Your task to perform on an android device: open app "TextNow: Call + Text Unlimited" (install if not already installed) Image 0: 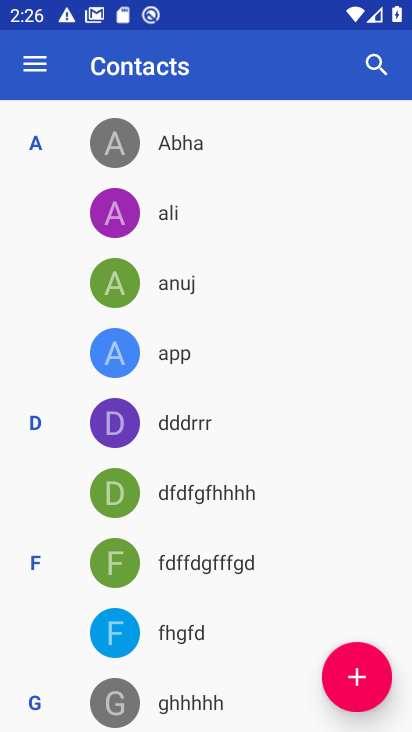
Step 0: press home button
Your task to perform on an android device: open app "TextNow: Call + Text Unlimited" (install if not already installed) Image 1: 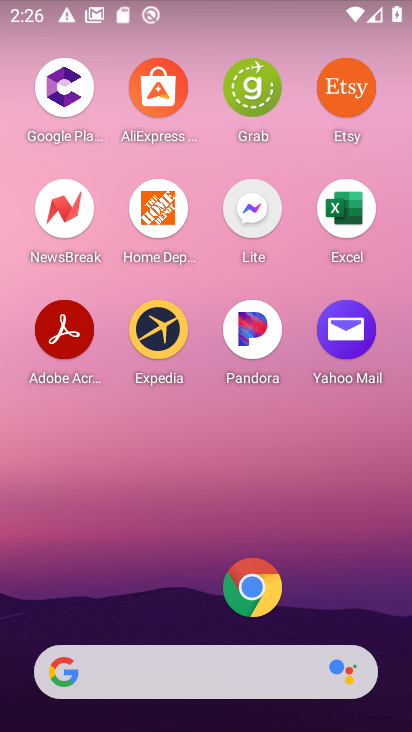
Step 1: drag from (171, 592) to (183, 204)
Your task to perform on an android device: open app "TextNow: Call + Text Unlimited" (install if not already installed) Image 2: 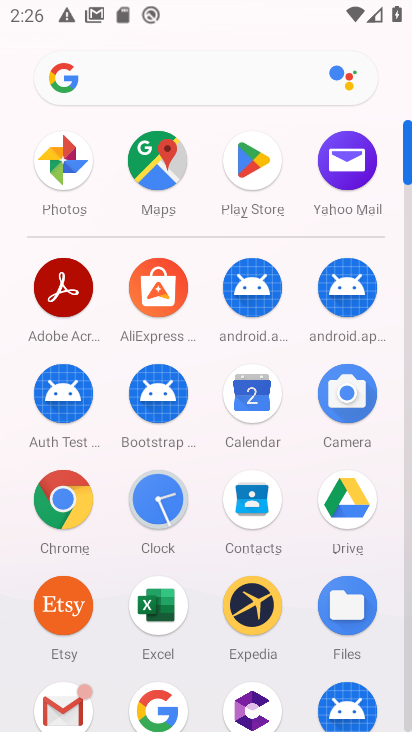
Step 2: click (262, 172)
Your task to perform on an android device: open app "TextNow: Call + Text Unlimited" (install if not already installed) Image 3: 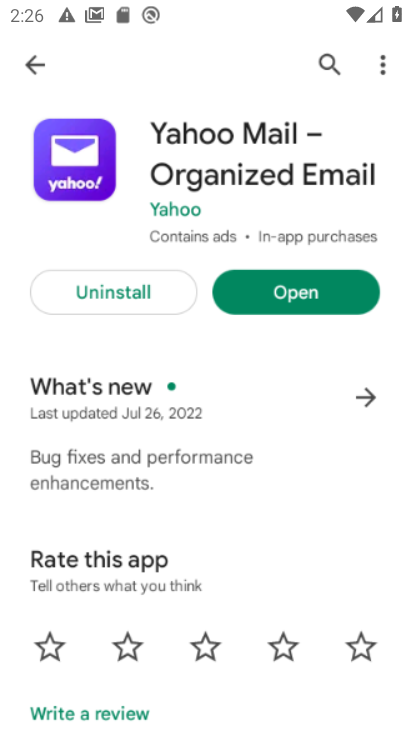
Step 3: click (330, 71)
Your task to perform on an android device: open app "TextNow: Call + Text Unlimited" (install if not already installed) Image 4: 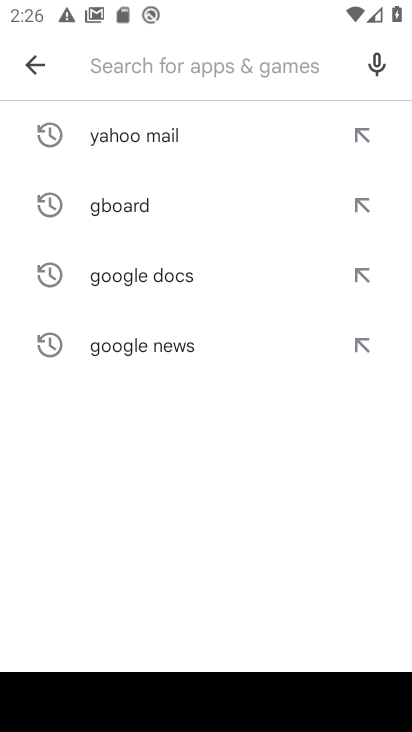
Step 4: type "TextNow: Call + Text Unlimited"
Your task to perform on an android device: open app "TextNow: Call + Text Unlimited" (install if not already installed) Image 5: 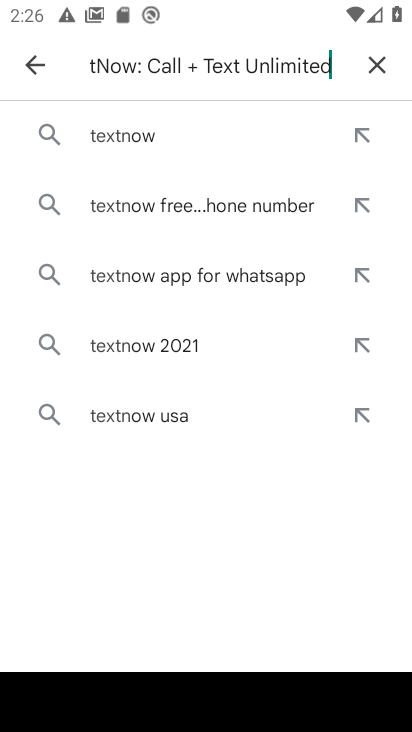
Step 5: type ""
Your task to perform on an android device: open app "TextNow: Call + Text Unlimited" (install if not already installed) Image 6: 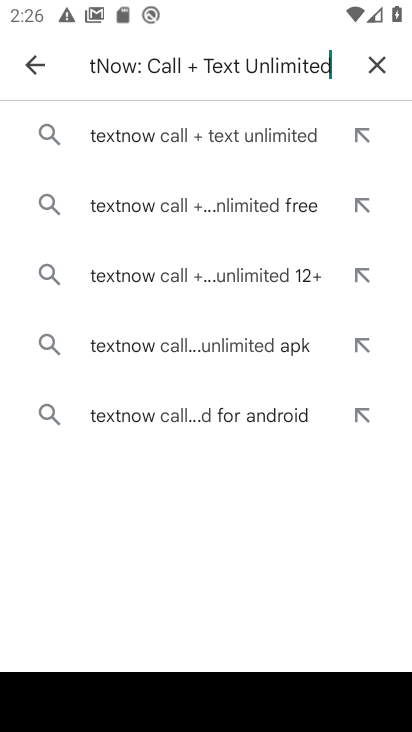
Step 6: click (196, 144)
Your task to perform on an android device: open app "TextNow: Call + Text Unlimited" (install if not already installed) Image 7: 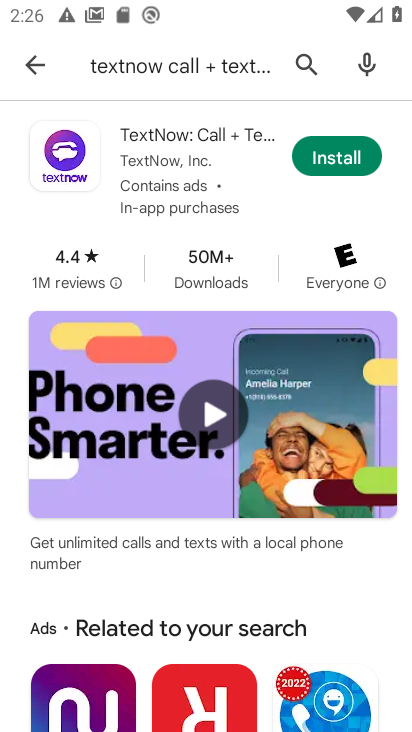
Step 7: click (343, 157)
Your task to perform on an android device: open app "TextNow: Call + Text Unlimited" (install if not already installed) Image 8: 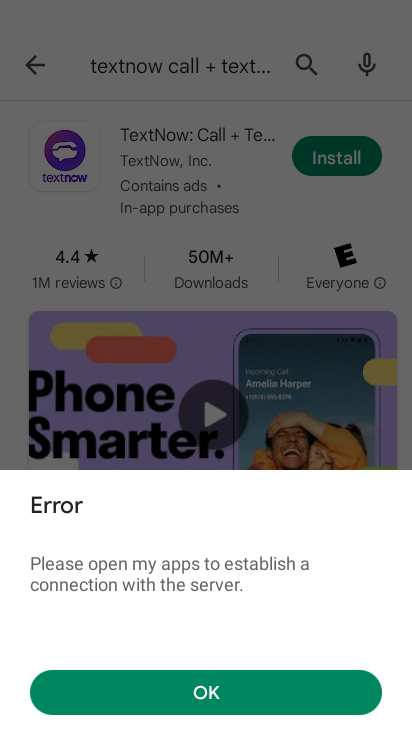
Step 8: click (224, 683)
Your task to perform on an android device: open app "TextNow: Call + Text Unlimited" (install if not already installed) Image 9: 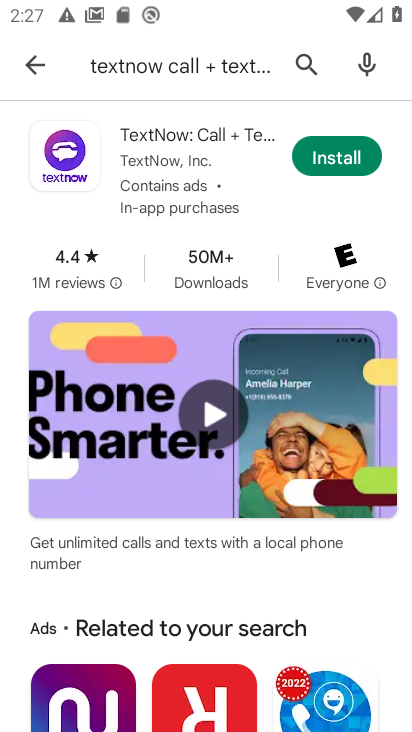
Step 9: click (339, 158)
Your task to perform on an android device: open app "TextNow: Call + Text Unlimited" (install if not already installed) Image 10: 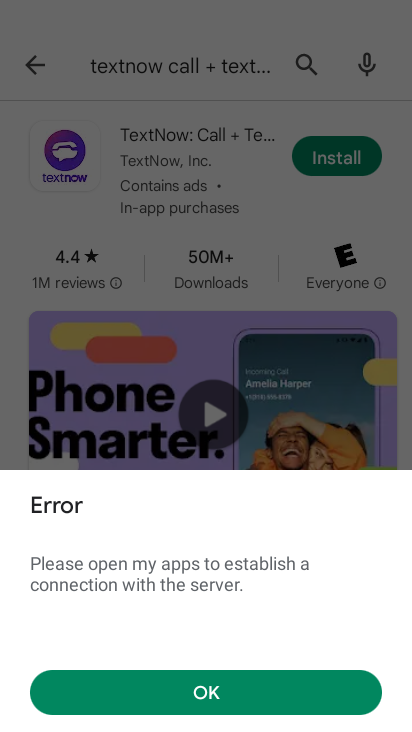
Step 10: click (295, 681)
Your task to perform on an android device: open app "TextNow: Call + Text Unlimited" (install if not already installed) Image 11: 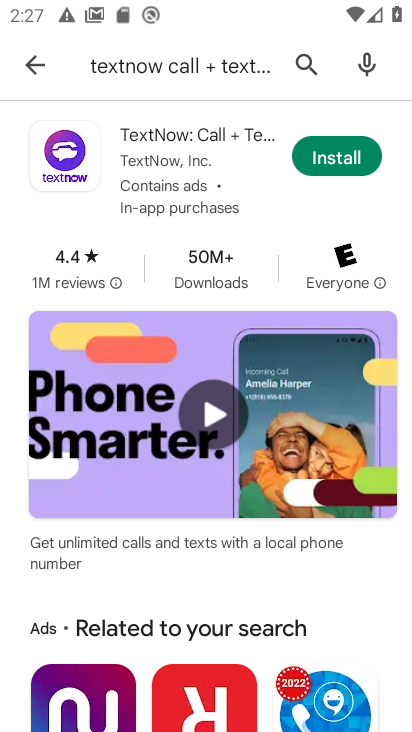
Step 11: task complete